Your task to perform on an android device: Empty the shopping cart on walmart. Search for bose soundlink on walmart, select the first entry, add it to the cart, then select checkout. Image 0: 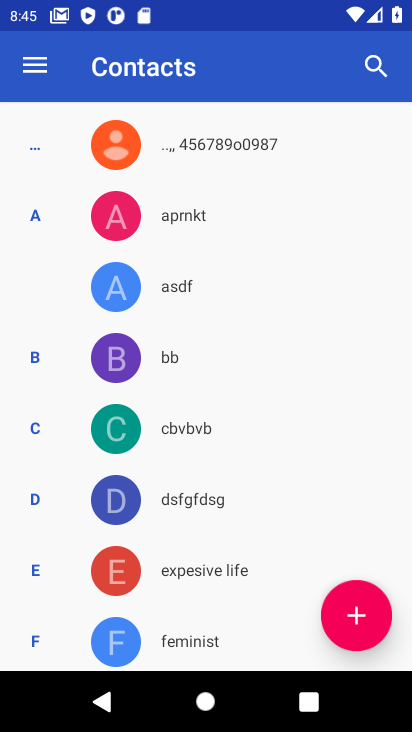
Step 0: press home button
Your task to perform on an android device: Empty the shopping cart on walmart. Search for bose soundlink on walmart, select the first entry, add it to the cart, then select checkout. Image 1: 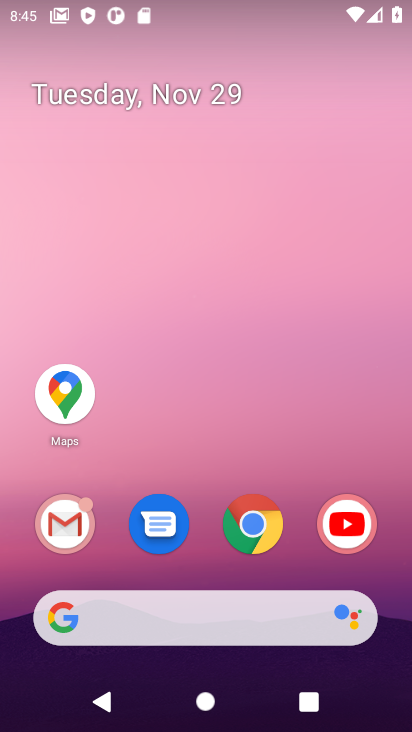
Step 1: click (248, 533)
Your task to perform on an android device: Empty the shopping cart on walmart. Search for bose soundlink on walmart, select the first entry, add it to the cart, then select checkout. Image 2: 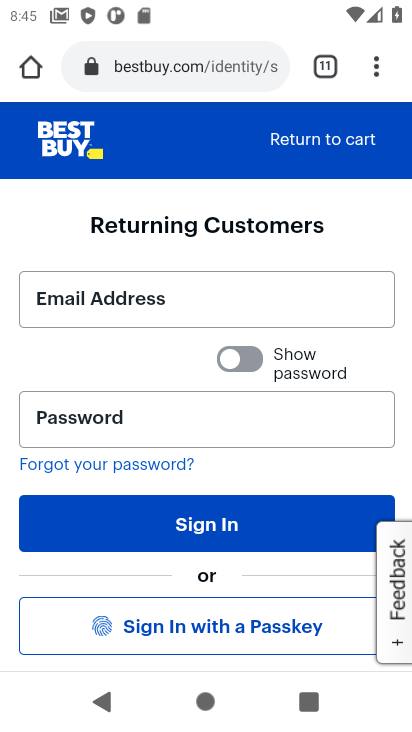
Step 2: click (148, 70)
Your task to perform on an android device: Empty the shopping cart on walmart. Search for bose soundlink on walmart, select the first entry, add it to the cart, then select checkout. Image 3: 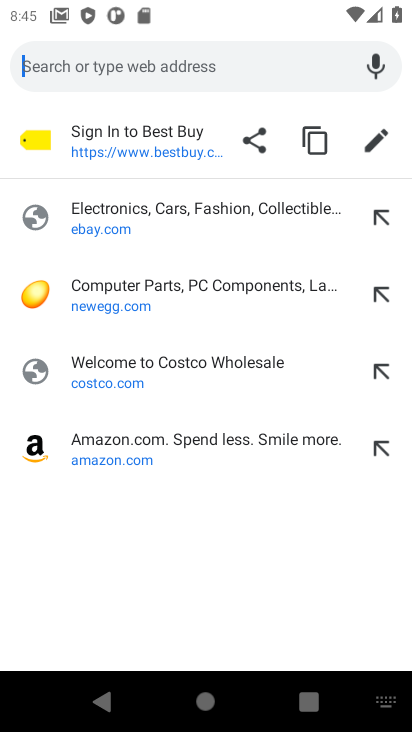
Step 3: type "walmart.com"
Your task to perform on an android device: Empty the shopping cart on walmart. Search for bose soundlink on walmart, select the first entry, add it to the cart, then select checkout. Image 4: 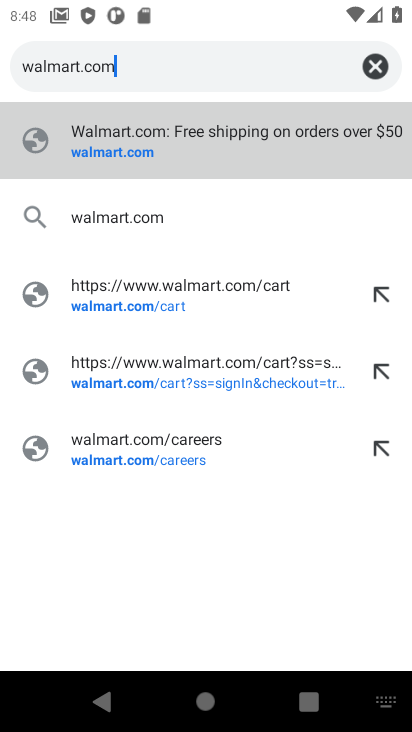
Step 4: click (105, 153)
Your task to perform on an android device: Empty the shopping cart on walmart. Search for bose soundlink on walmart, select the first entry, add it to the cart, then select checkout. Image 5: 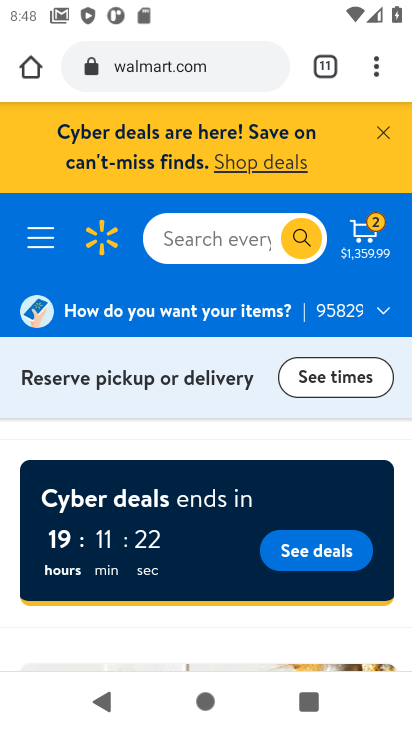
Step 5: click (368, 233)
Your task to perform on an android device: Empty the shopping cart on walmart. Search for bose soundlink on walmart, select the first entry, add it to the cart, then select checkout. Image 6: 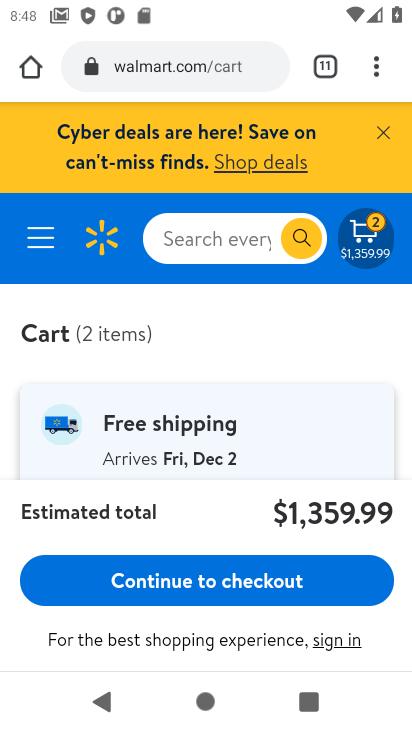
Step 6: drag from (193, 516) to (184, 304)
Your task to perform on an android device: Empty the shopping cart on walmart. Search for bose soundlink on walmart, select the first entry, add it to the cart, then select checkout. Image 7: 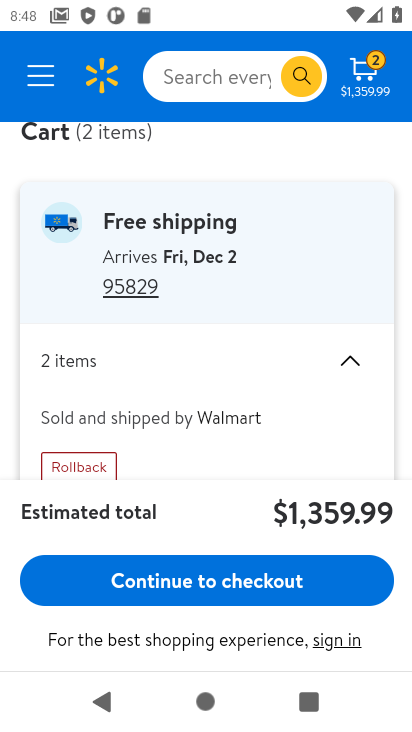
Step 7: drag from (185, 411) to (186, 248)
Your task to perform on an android device: Empty the shopping cart on walmart. Search for bose soundlink on walmart, select the first entry, add it to the cart, then select checkout. Image 8: 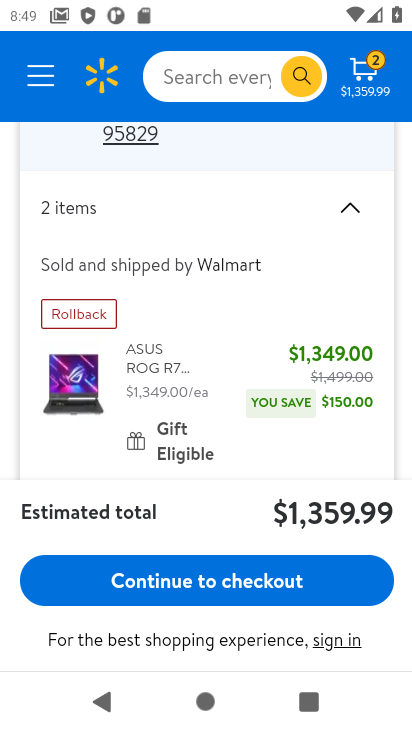
Step 8: drag from (189, 431) to (176, 231)
Your task to perform on an android device: Empty the shopping cart on walmart. Search for bose soundlink on walmart, select the first entry, add it to the cart, then select checkout. Image 9: 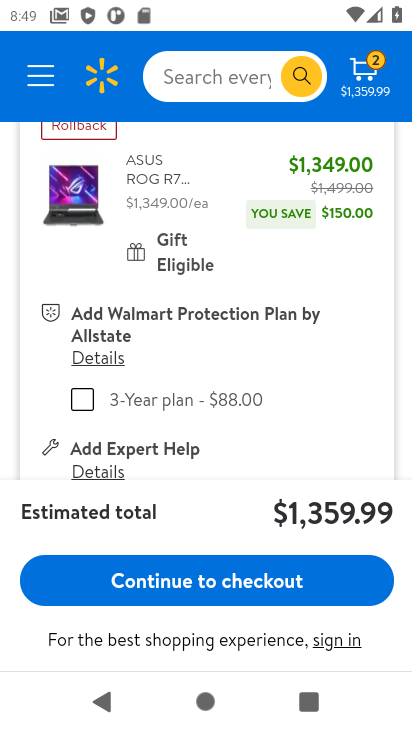
Step 9: drag from (171, 440) to (181, 201)
Your task to perform on an android device: Empty the shopping cart on walmart. Search for bose soundlink on walmart, select the first entry, add it to the cart, then select checkout. Image 10: 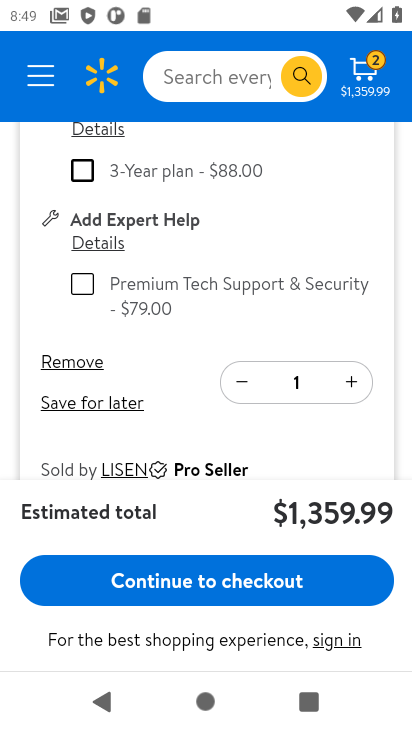
Step 10: click (69, 364)
Your task to perform on an android device: Empty the shopping cart on walmart. Search for bose soundlink on walmart, select the first entry, add it to the cart, then select checkout. Image 11: 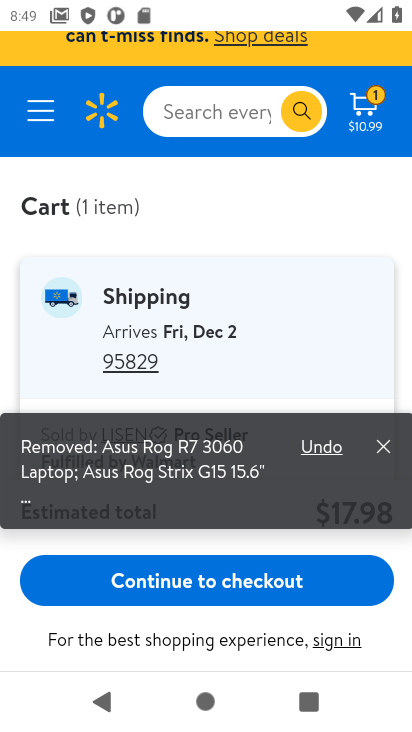
Step 11: click (382, 449)
Your task to perform on an android device: Empty the shopping cart on walmart. Search for bose soundlink on walmart, select the first entry, add it to the cart, then select checkout. Image 12: 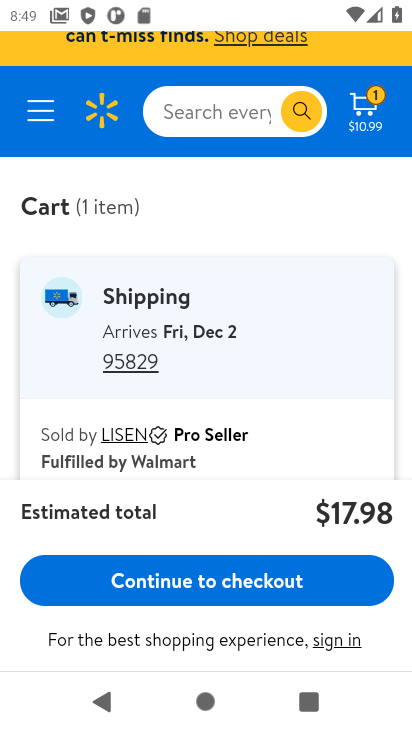
Step 12: drag from (191, 446) to (189, 225)
Your task to perform on an android device: Empty the shopping cart on walmart. Search for bose soundlink on walmart, select the first entry, add it to the cart, then select checkout. Image 13: 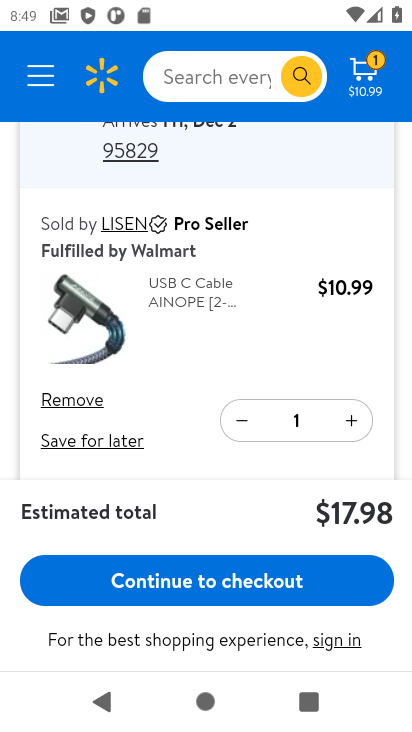
Step 13: click (60, 403)
Your task to perform on an android device: Empty the shopping cart on walmart. Search for bose soundlink on walmart, select the first entry, add it to the cart, then select checkout. Image 14: 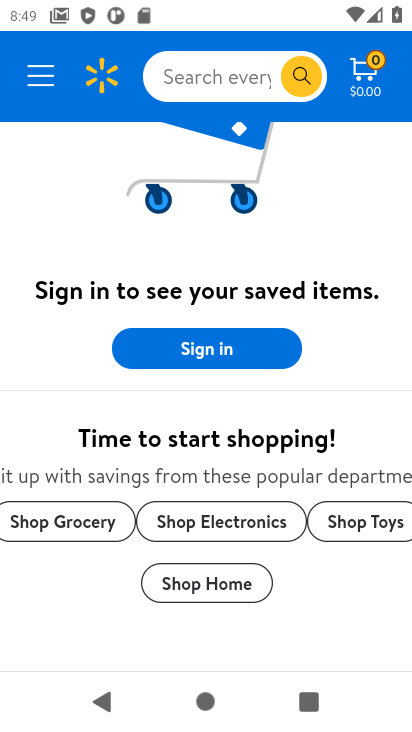
Step 14: click (182, 80)
Your task to perform on an android device: Empty the shopping cart on walmart. Search for bose soundlink on walmart, select the first entry, add it to the cart, then select checkout. Image 15: 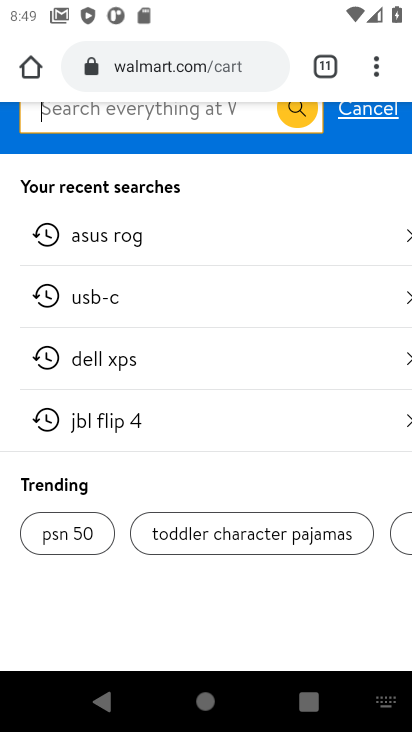
Step 15: type "bose soundlink"
Your task to perform on an android device: Empty the shopping cart on walmart. Search for bose soundlink on walmart, select the first entry, add it to the cart, then select checkout. Image 16: 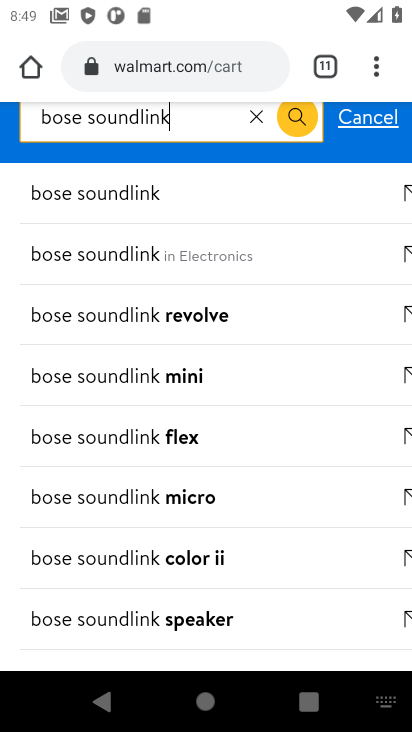
Step 16: click (71, 199)
Your task to perform on an android device: Empty the shopping cart on walmart. Search for bose soundlink on walmart, select the first entry, add it to the cart, then select checkout. Image 17: 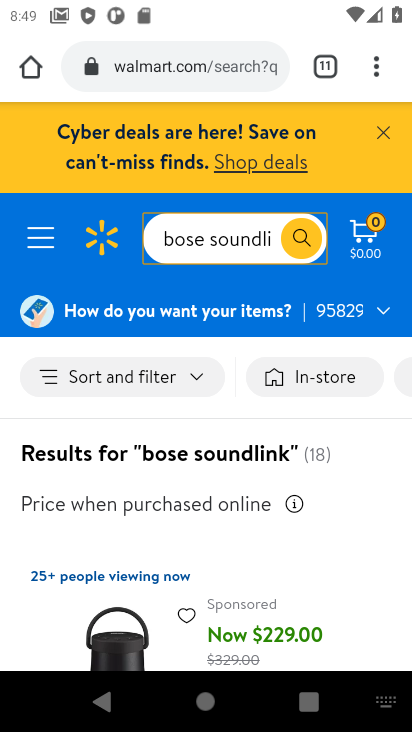
Step 17: drag from (171, 504) to (189, 215)
Your task to perform on an android device: Empty the shopping cart on walmart. Search for bose soundlink on walmart, select the first entry, add it to the cart, then select checkout. Image 18: 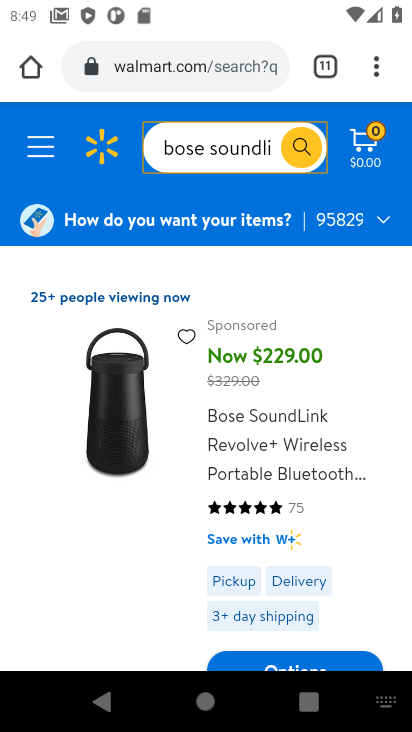
Step 18: drag from (181, 488) to (183, 357)
Your task to perform on an android device: Empty the shopping cart on walmart. Search for bose soundlink on walmart, select the first entry, add it to the cart, then select checkout. Image 19: 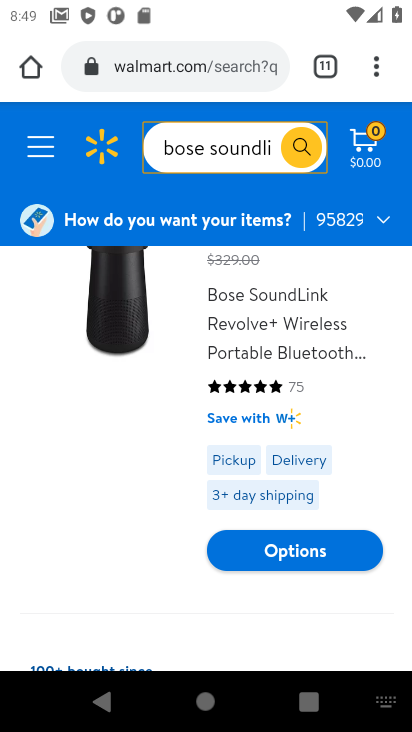
Step 19: click (238, 332)
Your task to perform on an android device: Empty the shopping cart on walmart. Search for bose soundlink on walmart, select the first entry, add it to the cart, then select checkout. Image 20: 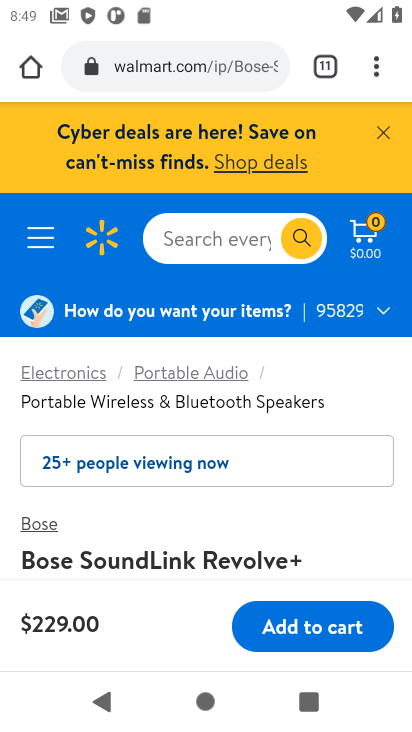
Step 20: drag from (212, 517) to (216, 241)
Your task to perform on an android device: Empty the shopping cart on walmart. Search for bose soundlink on walmart, select the first entry, add it to the cart, then select checkout. Image 21: 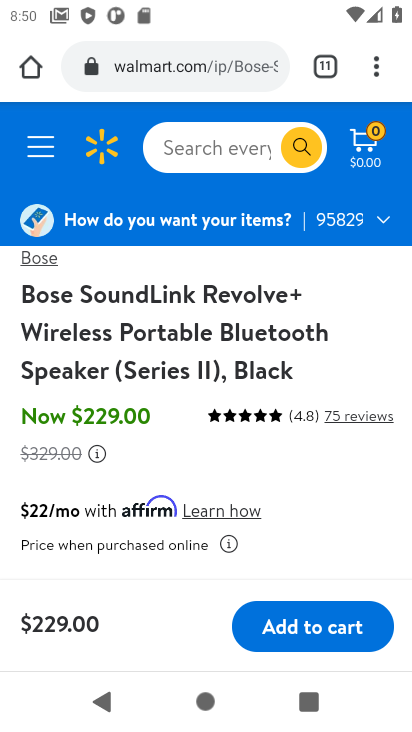
Step 21: click (316, 635)
Your task to perform on an android device: Empty the shopping cart on walmart. Search for bose soundlink on walmart, select the first entry, add it to the cart, then select checkout. Image 22: 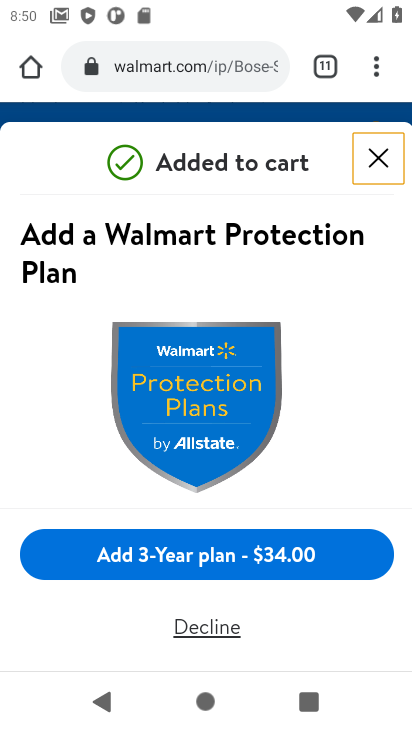
Step 22: click (379, 161)
Your task to perform on an android device: Empty the shopping cart on walmart. Search for bose soundlink on walmart, select the first entry, add it to the cart, then select checkout. Image 23: 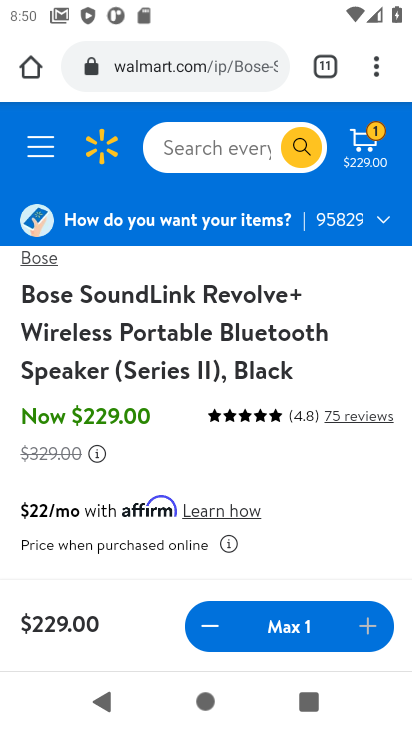
Step 23: click (371, 152)
Your task to perform on an android device: Empty the shopping cart on walmart. Search for bose soundlink on walmart, select the first entry, add it to the cart, then select checkout. Image 24: 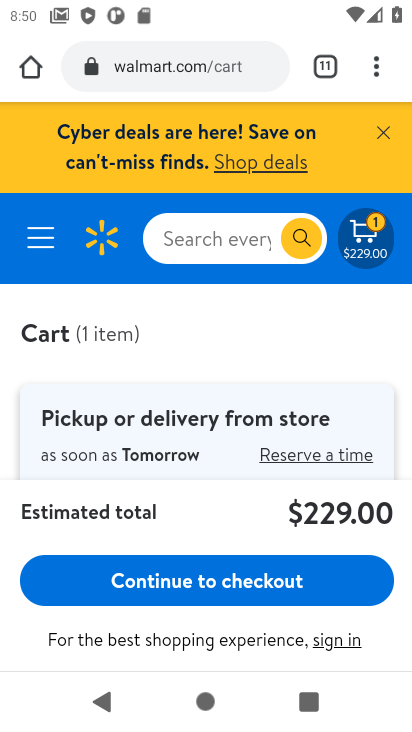
Step 24: click (229, 587)
Your task to perform on an android device: Empty the shopping cart on walmart. Search for bose soundlink on walmart, select the first entry, add it to the cart, then select checkout. Image 25: 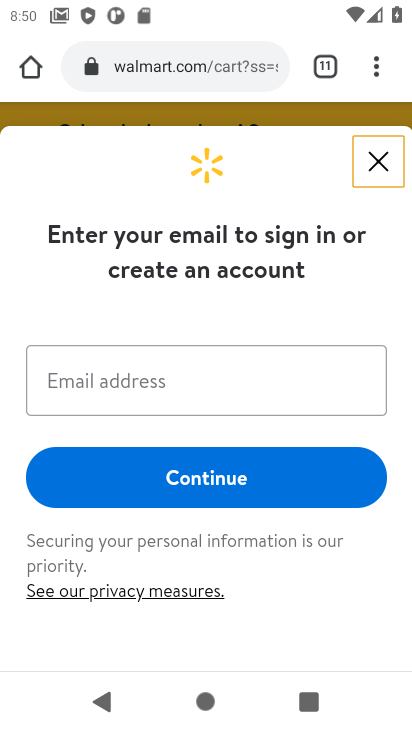
Step 25: task complete